Your task to perform on an android device: Open Wikipedia Image 0: 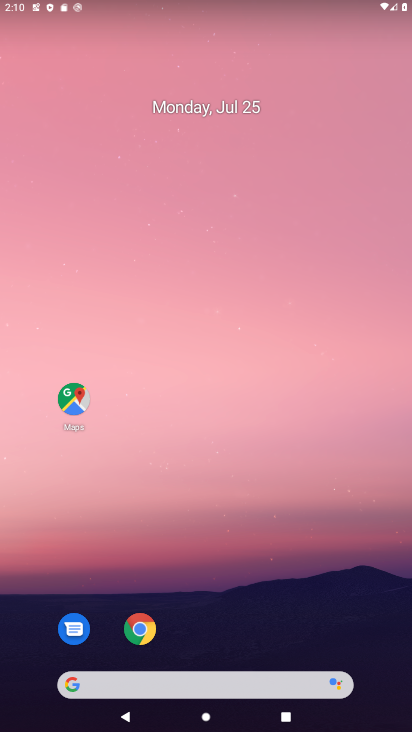
Step 0: click (114, 674)
Your task to perform on an android device: Open Wikipedia Image 1: 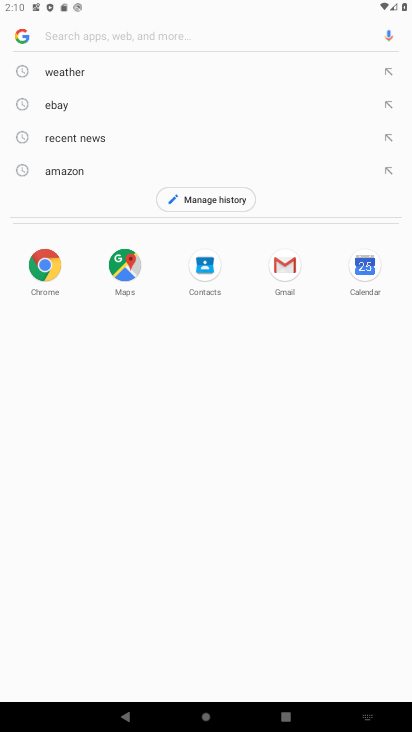
Step 1: type " Wikipedia"
Your task to perform on an android device: Open Wikipedia Image 2: 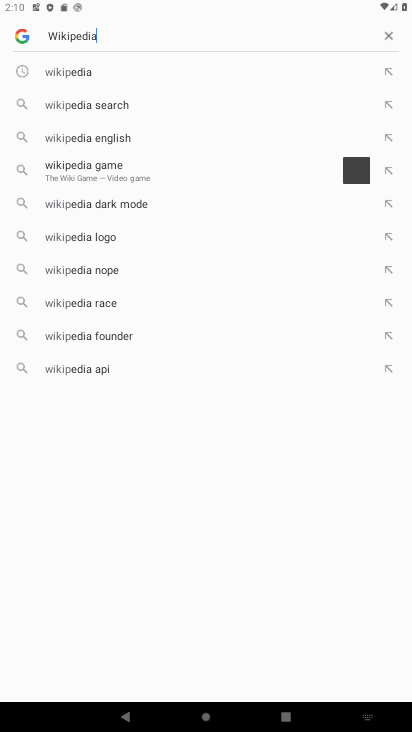
Step 2: type ""
Your task to perform on an android device: Open Wikipedia Image 3: 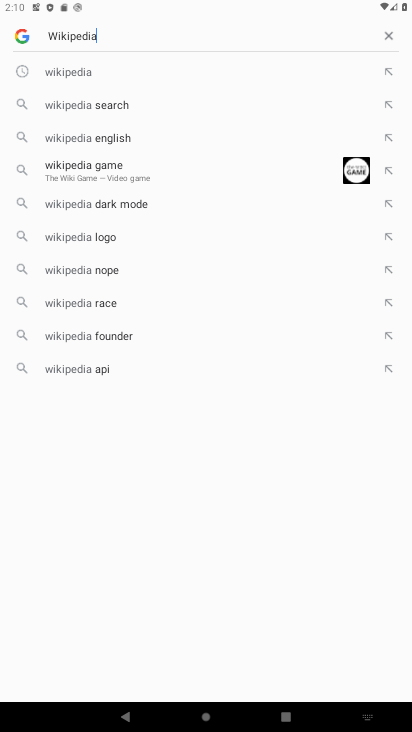
Step 3: click (76, 79)
Your task to perform on an android device: Open Wikipedia Image 4: 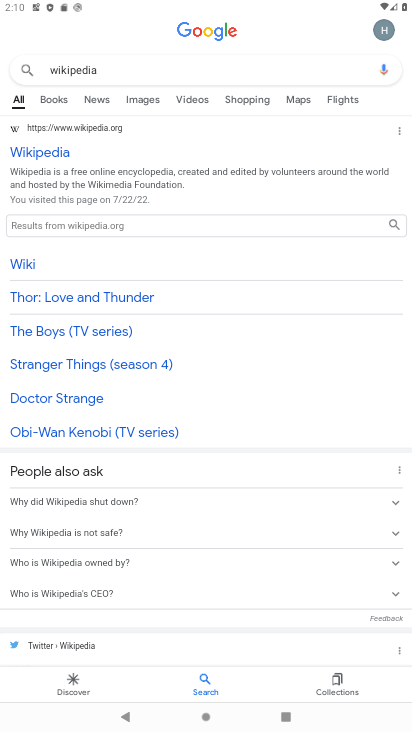
Step 4: task complete